Your task to perform on an android device: Search for the new Nintendo switch on Walmart. Image 0: 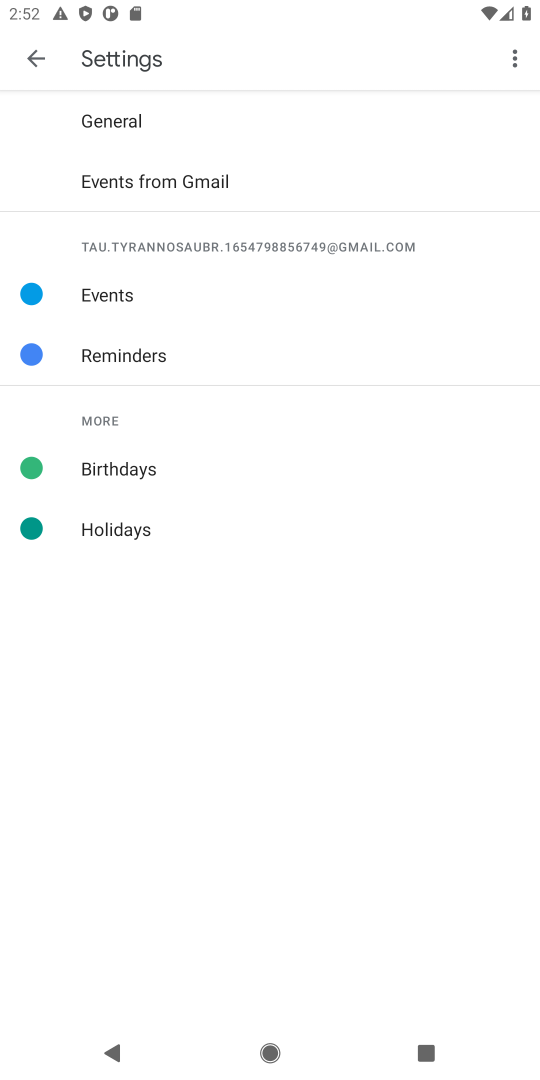
Step 0: press home button
Your task to perform on an android device: Search for the new Nintendo switch on Walmart. Image 1: 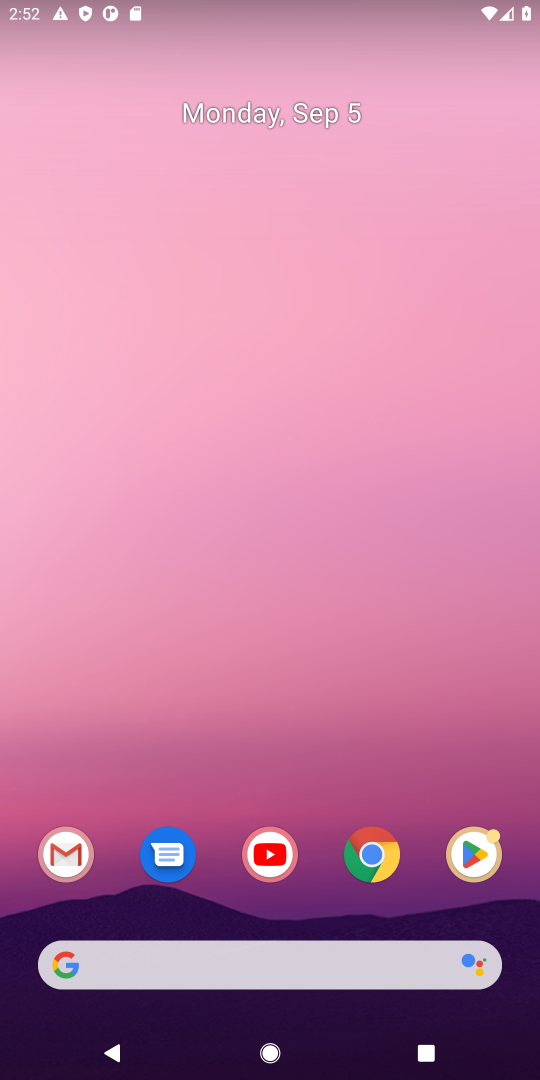
Step 1: click (400, 960)
Your task to perform on an android device: Search for the new Nintendo switch on Walmart. Image 2: 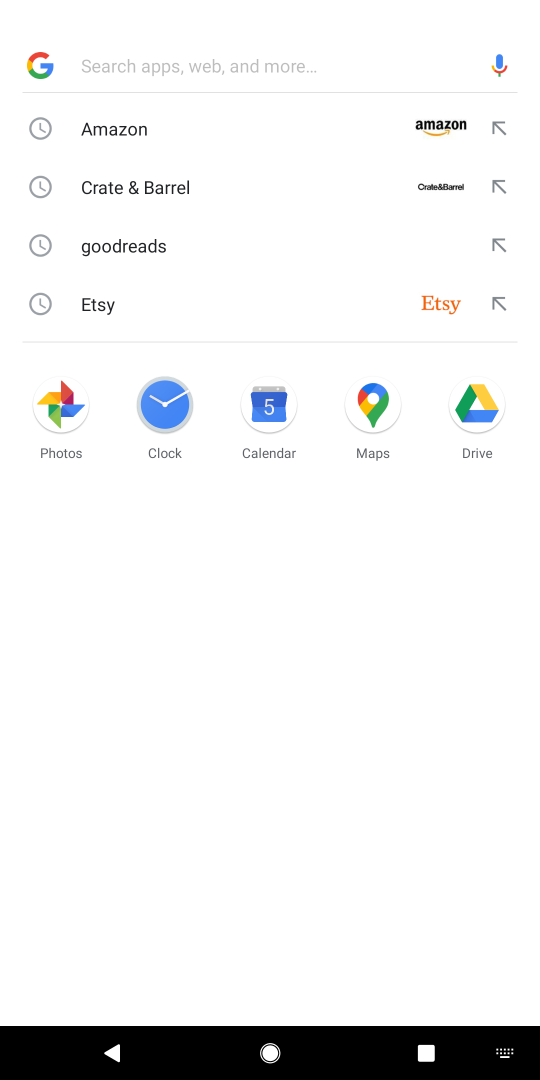
Step 2: press enter
Your task to perform on an android device: Search for the new Nintendo switch on Walmart. Image 3: 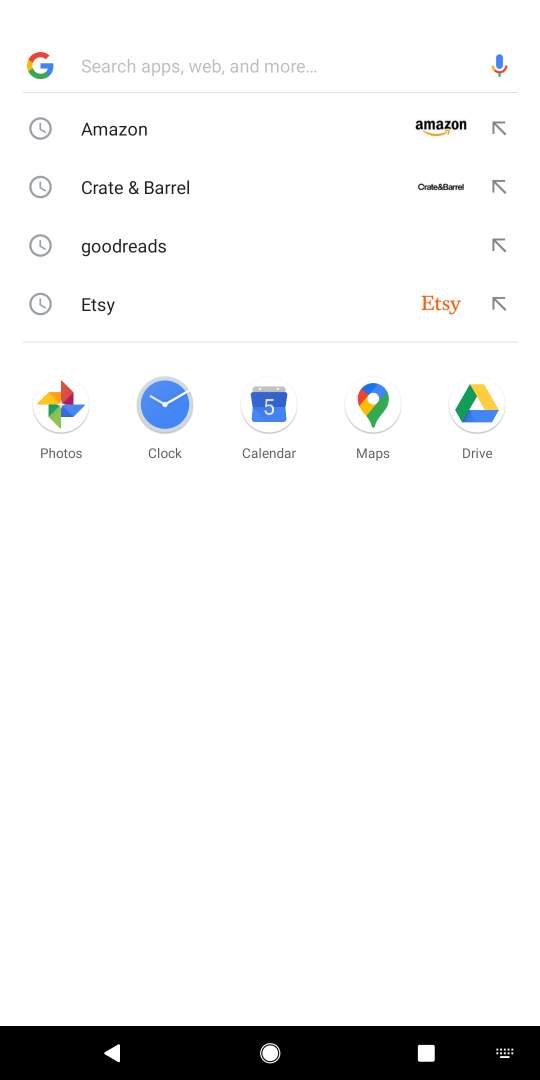
Step 3: type "walmart"
Your task to perform on an android device: Search for the new Nintendo switch on Walmart. Image 4: 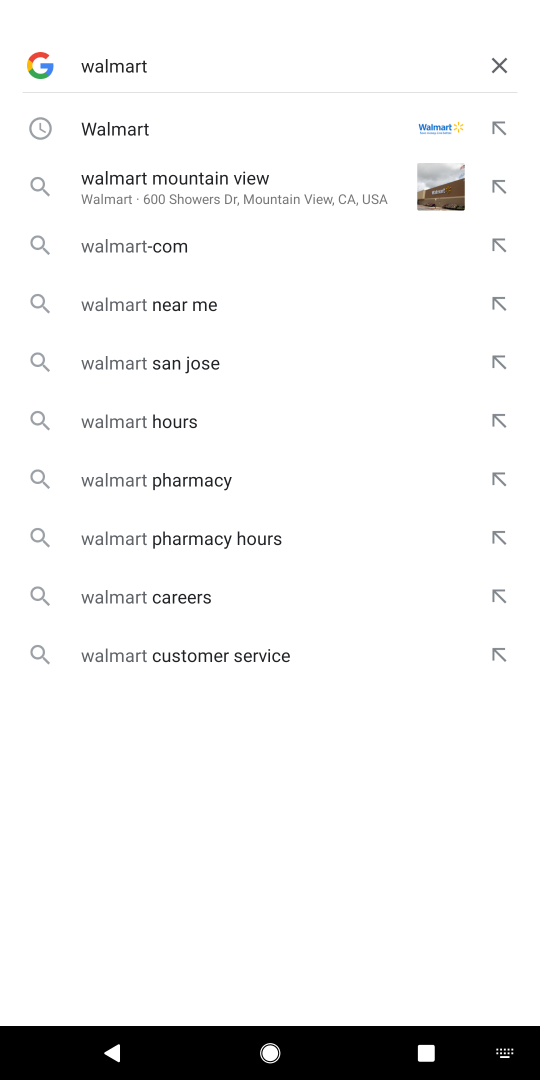
Step 4: click (187, 127)
Your task to perform on an android device: Search for the new Nintendo switch on Walmart. Image 5: 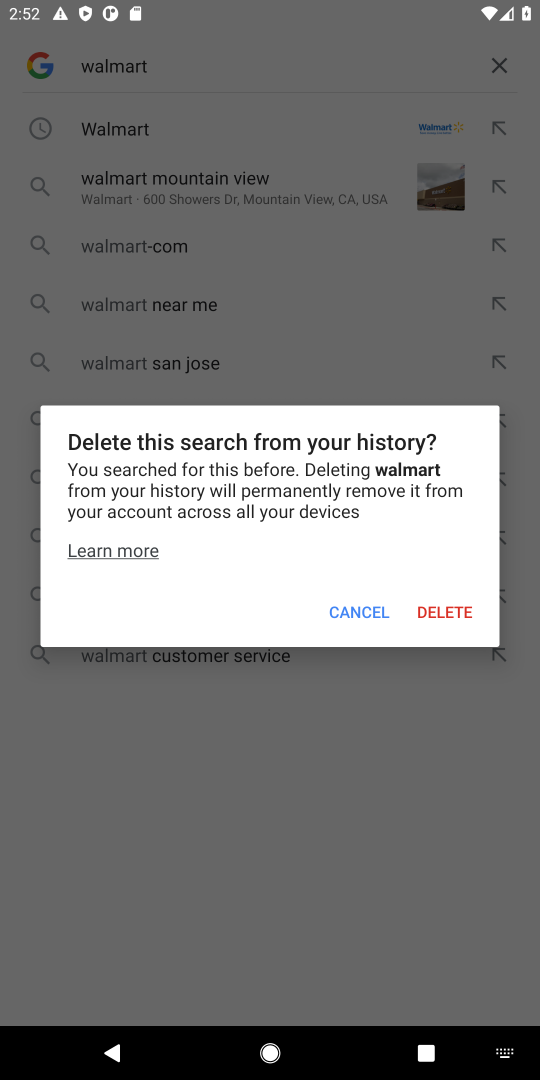
Step 5: click (357, 605)
Your task to perform on an android device: Search for the new Nintendo switch on Walmart. Image 6: 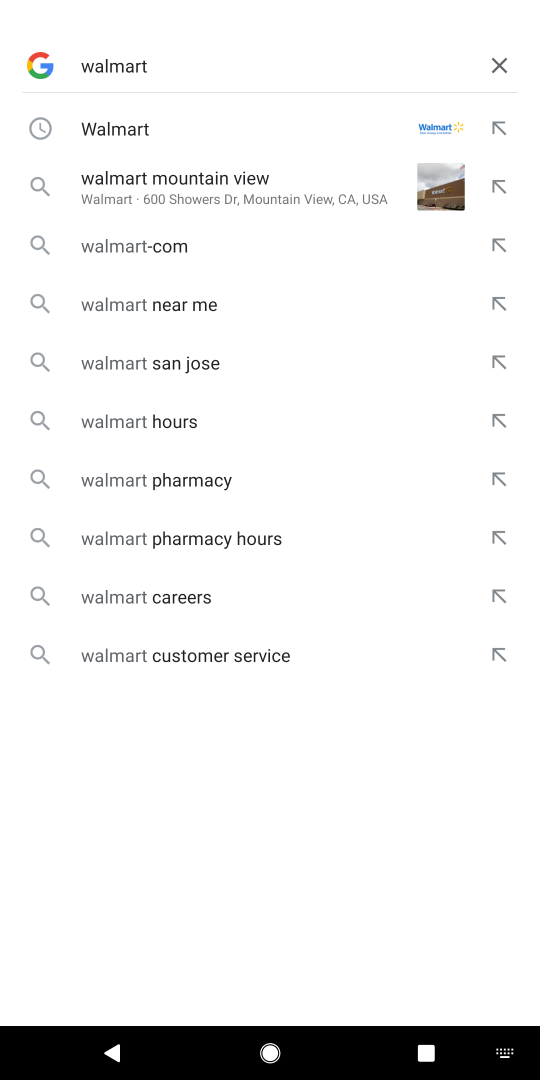
Step 6: click (143, 124)
Your task to perform on an android device: Search for the new Nintendo switch on Walmart. Image 7: 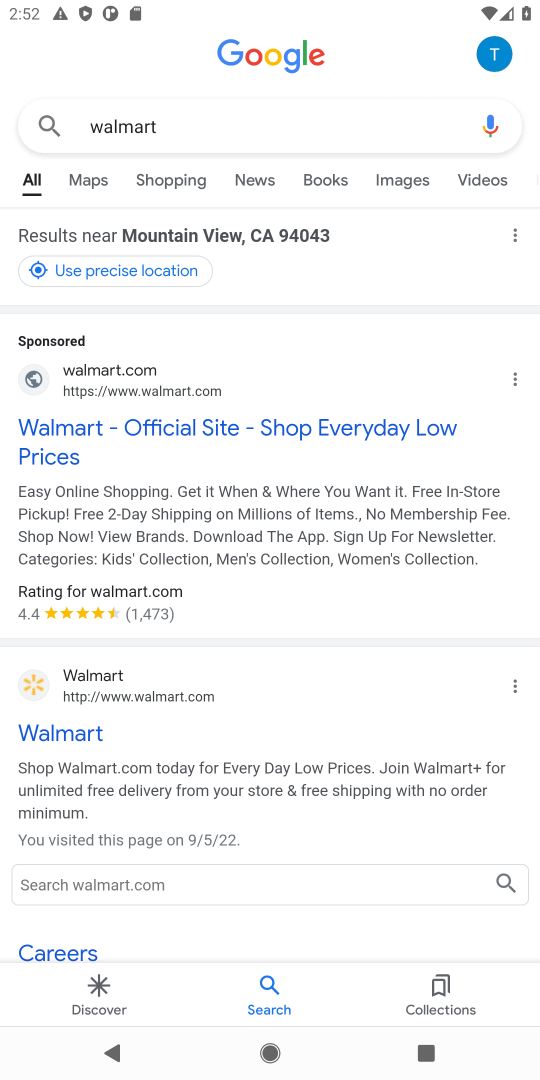
Step 7: click (200, 421)
Your task to perform on an android device: Search for the new Nintendo switch on Walmart. Image 8: 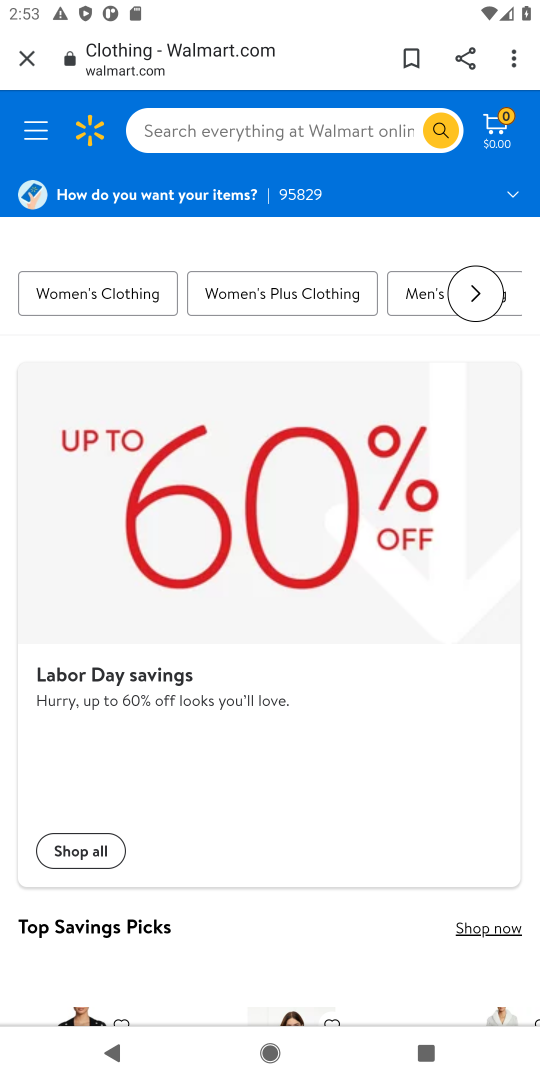
Step 8: click (260, 135)
Your task to perform on an android device: Search for the new Nintendo switch on Walmart. Image 9: 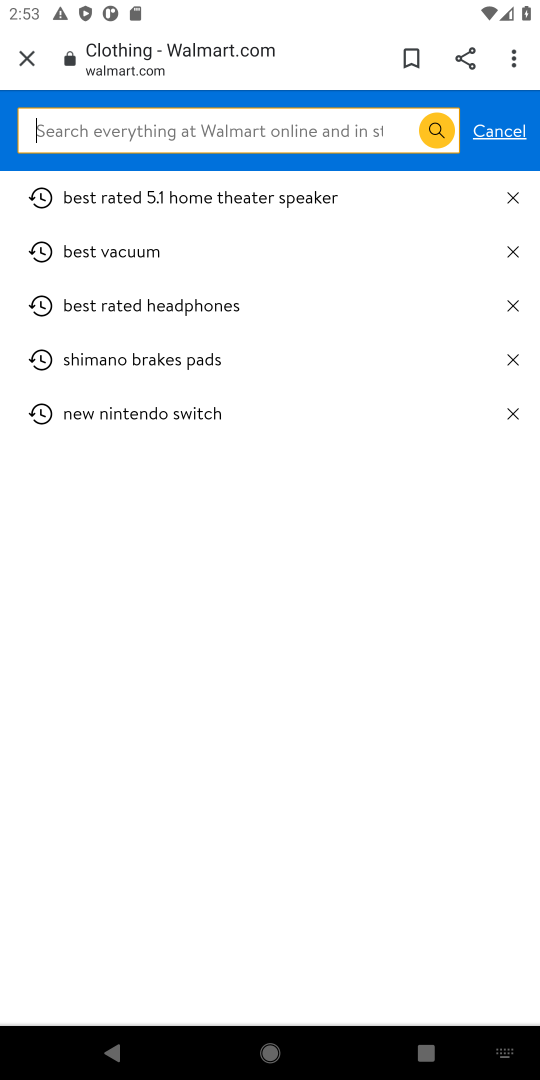
Step 9: type "new nintendo switch"
Your task to perform on an android device: Search for the new Nintendo switch on Walmart. Image 10: 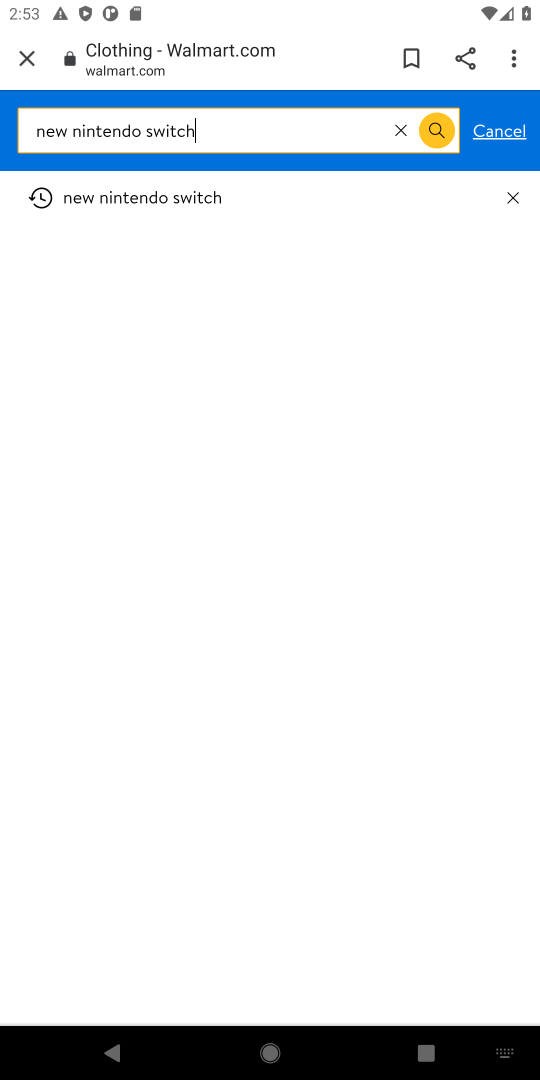
Step 10: press enter
Your task to perform on an android device: Search for the new Nintendo switch on Walmart. Image 11: 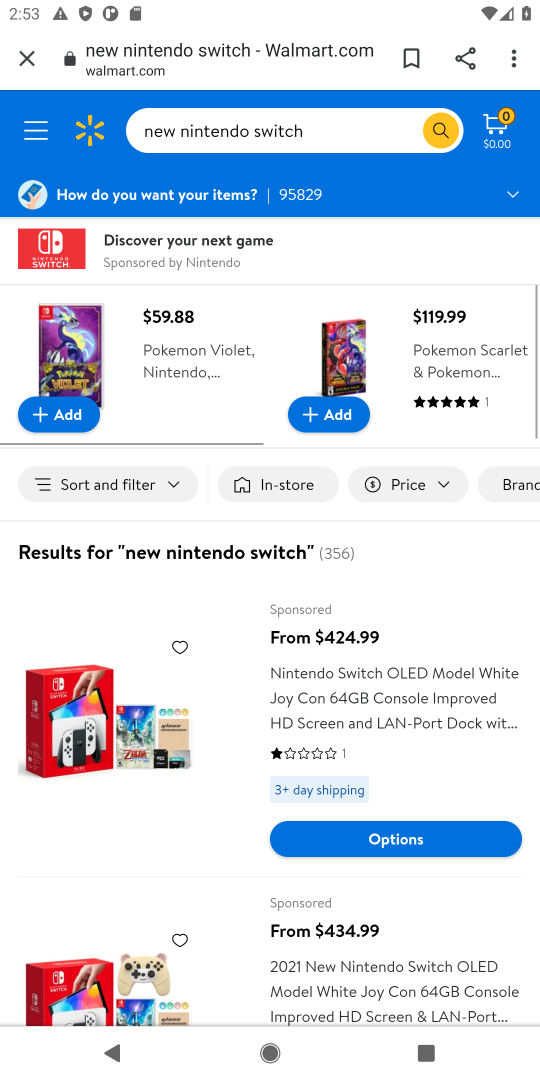
Step 11: task complete